Your task to perform on an android device: Go to CNN.com Image 0: 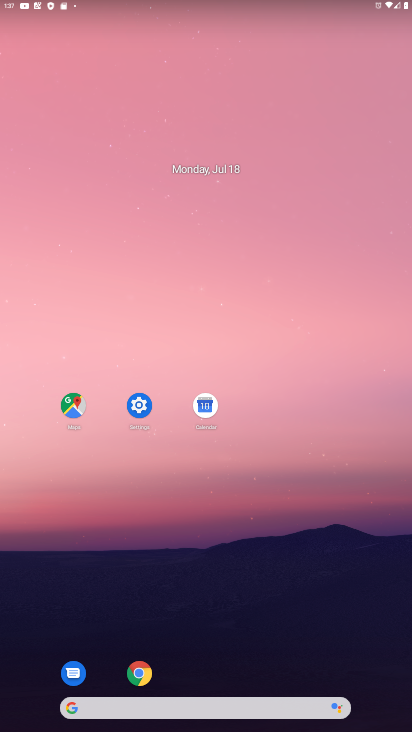
Step 0: click (136, 403)
Your task to perform on an android device: Go to CNN.com Image 1: 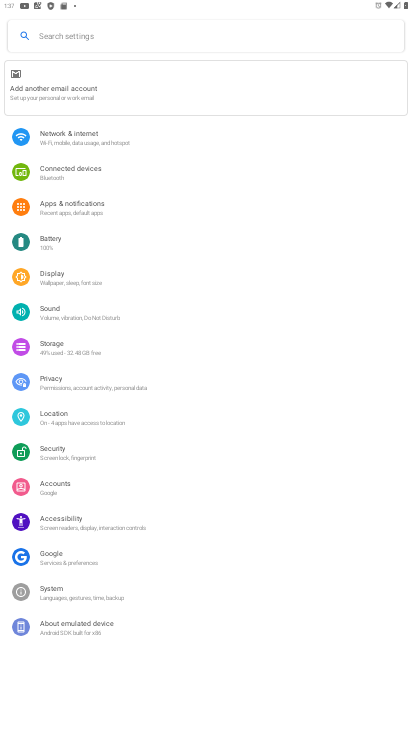
Step 1: press home button
Your task to perform on an android device: Go to CNN.com Image 2: 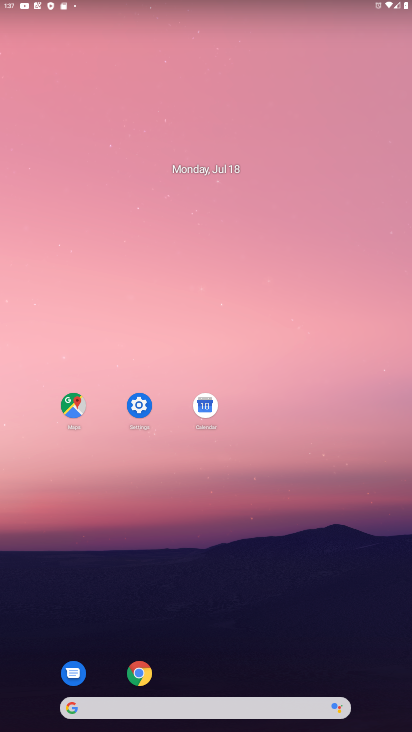
Step 2: click (142, 663)
Your task to perform on an android device: Go to CNN.com Image 3: 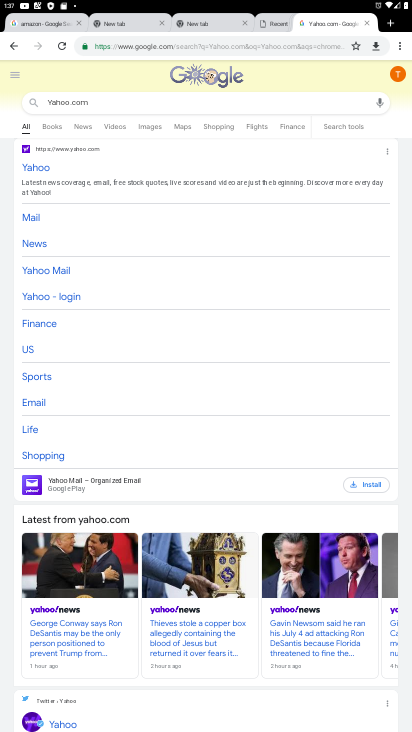
Step 3: click (324, 40)
Your task to perform on an android device: Go to CNN.com Image 4: 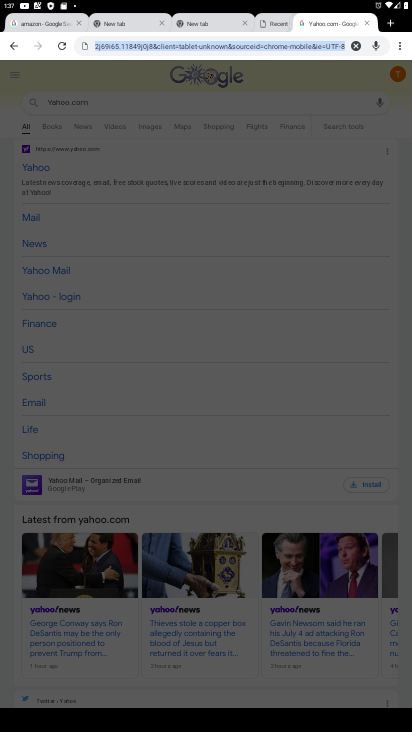
Step 4: click (357, 46)
Your task to perform on an android device: Go to CNN.com Image 5: 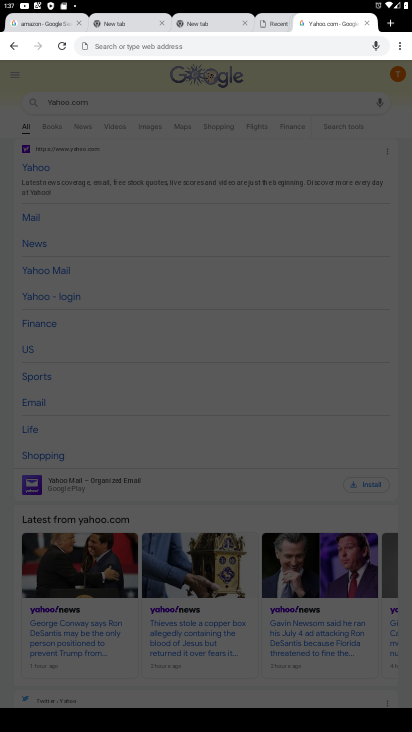
Step 5: type "CNN.com"
Your task to perform on an android device: Go to CNN.com Image 6: 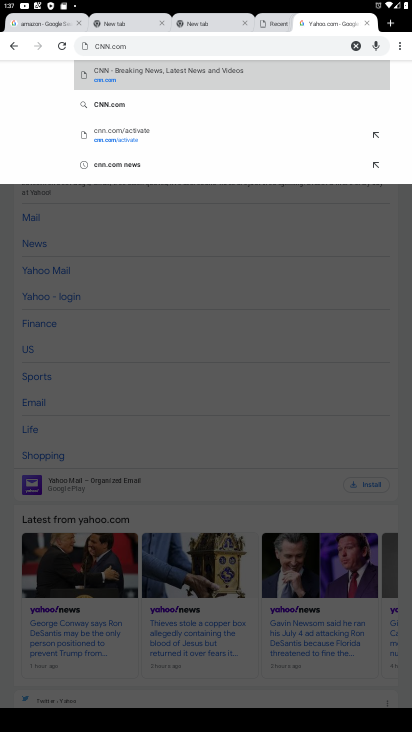
Step 6: click (108, 103)
Your task to perform on an android device: Go to CNN.com Image 7: 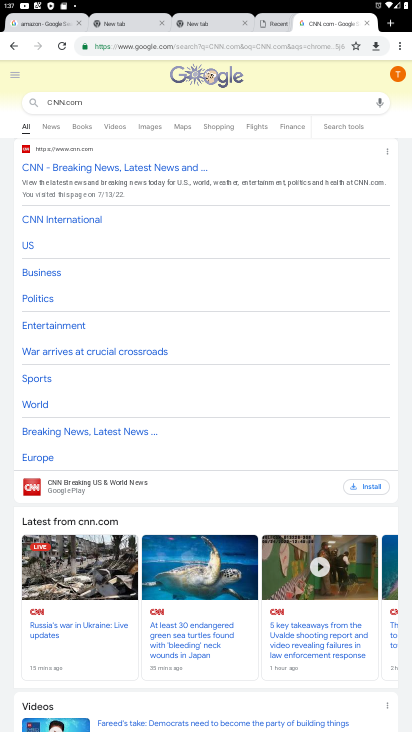
Step 7: task complete